Your task to perform on an android device: open the mobile data screen to see how much data has been used Image 0: 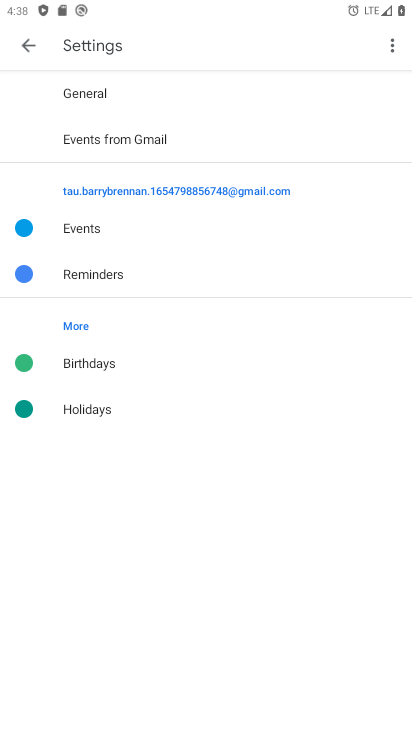
Step 0: press back button
Your task to perform on an android device: open the mobile data screen to see how much data has been used Image 1: 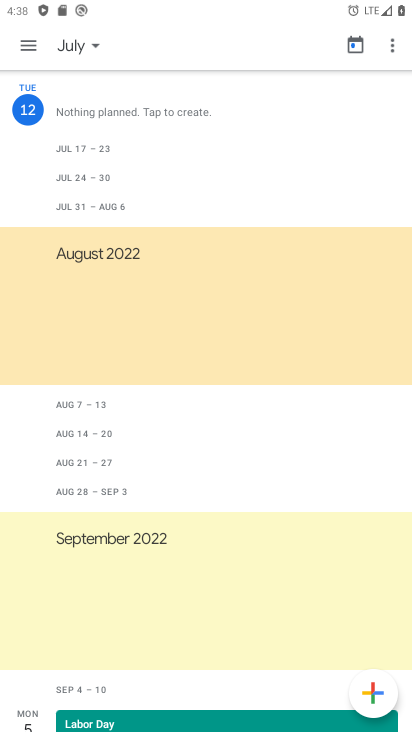
Step 1: click (77, 391)
Your task to perform on an android device: open the mobile data screen to see how much data has been used Image 2: 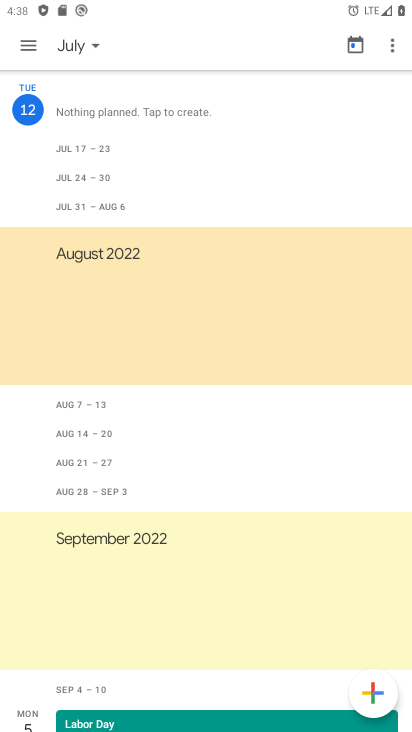
Step 2: click (74, 399)
Your task to perform on an android device: open the mobile data screen to see how much data has been used Image 3: 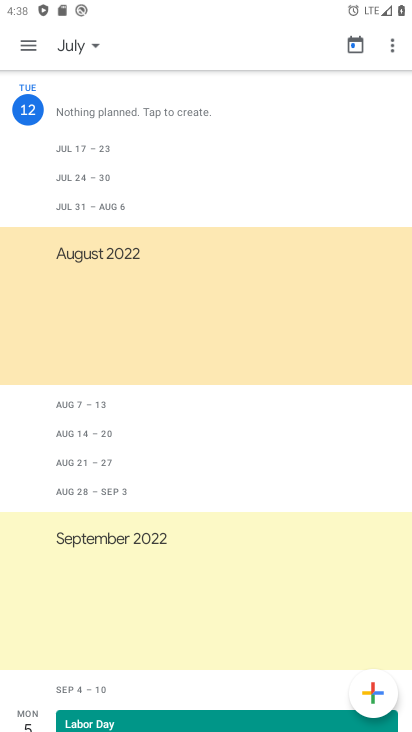
Step 3: click (77, 397)
Your task to perform on an android device: open the mobile data screen to see how much data has been used Image 4: 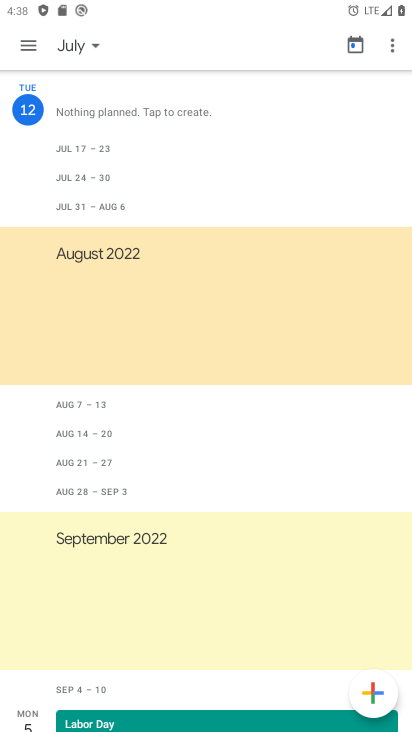
Step 4: click (78, 396)
Your task to perform on an android device: open the mobile data screen to see how much data has been used Image 5: 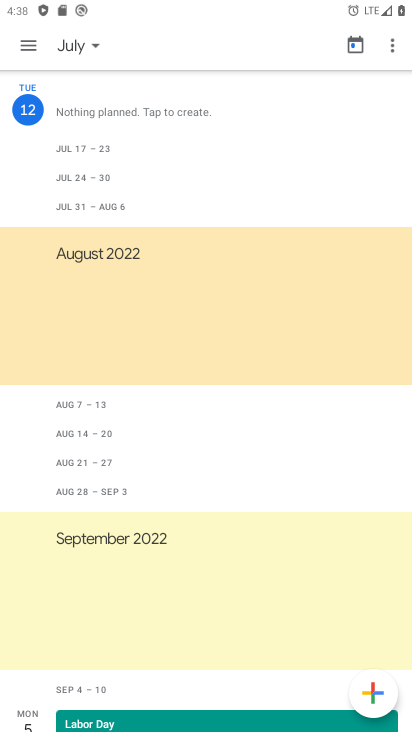
Step 5: click (81, 396)
Your task to perform on an android device: open the mobile data screen to see how much data has been used Image 6: 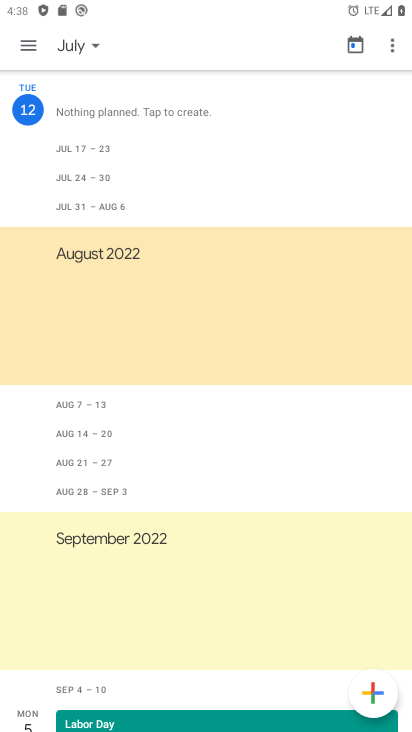
Step 6: click (81, 396)
Your task to perform on an android device: open the mobile data screen to see how much data has been used Image 7: 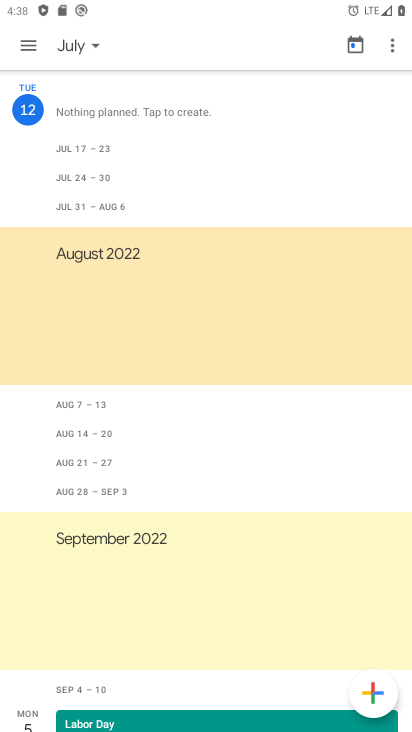
Step 7: click (81, 396)
Your task to perform on an android device: open the mobile data screen to see how much data has been used Image 8: 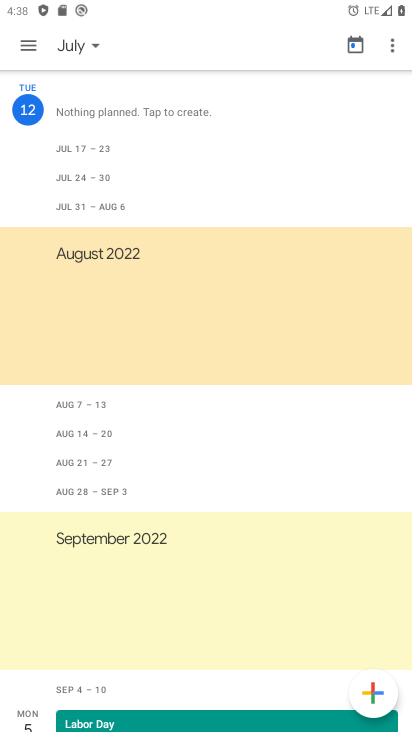
Step 8: click (84, 396)
Your task to perform on an android device: open the mobile data screen to see how much data has been used Image 9: 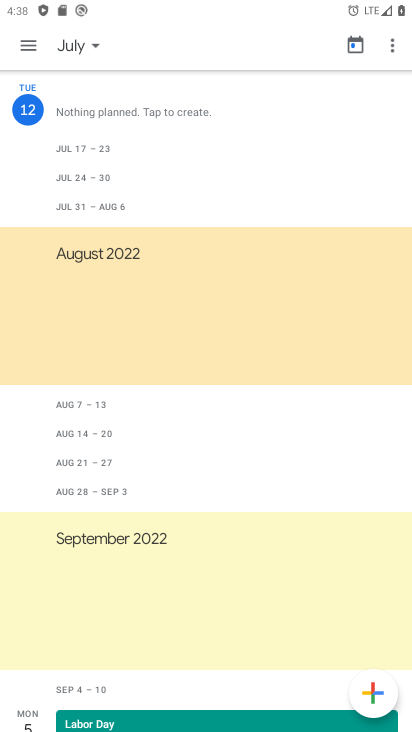
Step 9: click (84, 396)
Your task to perform on an android device: open the mobile data screen to see how much data has been used Image 10: 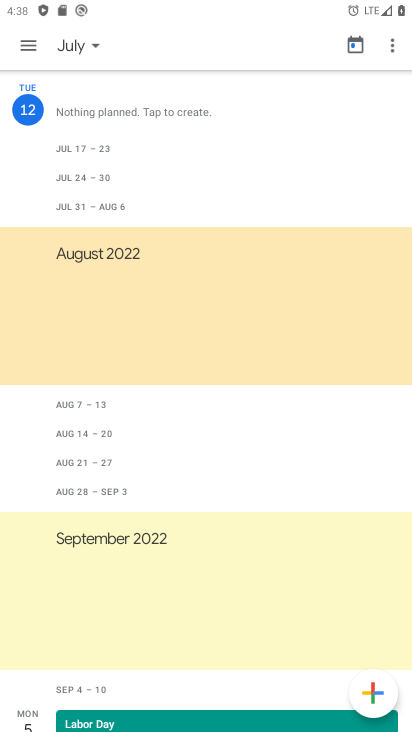
Step 10: click (85, 396)
Your task to perform on an android device: open the mobile data screen to see how much data has been used Image 11: 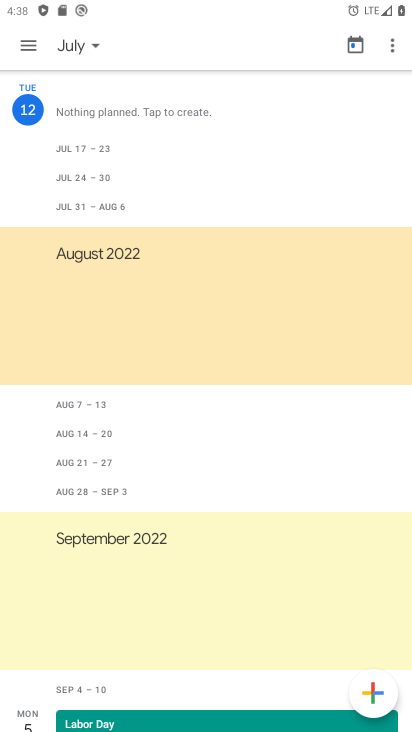
Step 11: click (86, 397)
Your task to perform on an android device: open the mobile data screen to see how much data has been used Image 12: 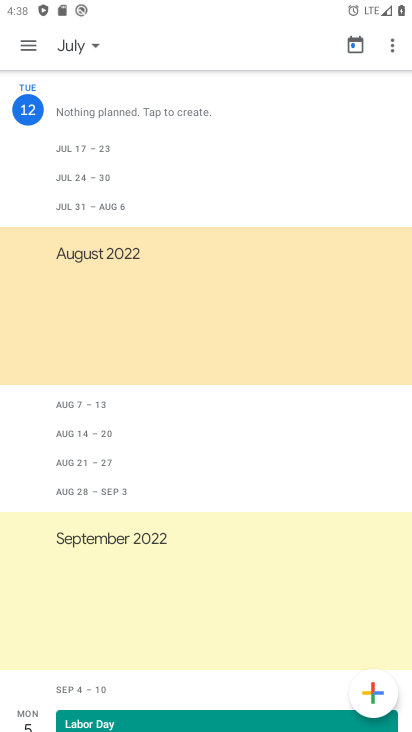
Step 12: click (83, 400)
Your task to perform on an android device: open the mobile data screen to see how much data has been used Image 13: 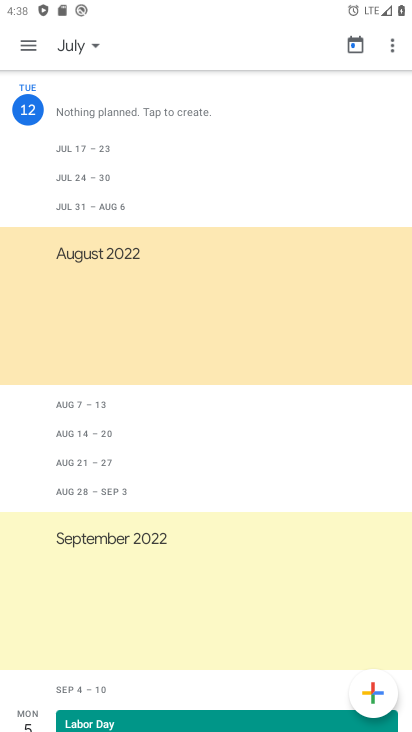
Step 13: click (84, 401)
Your task to perform on an android device: open the mobile data screen to see how much data has been used Image 14: 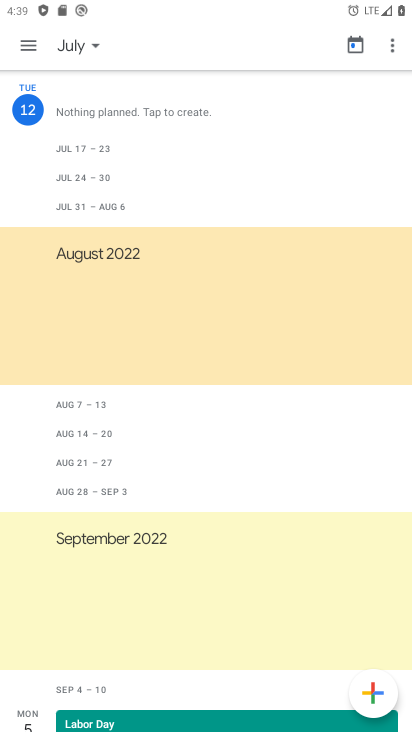
Step 14: press back button
Your task to perform on an android device: open the mobile data screen to see how much data has been used Image 15: 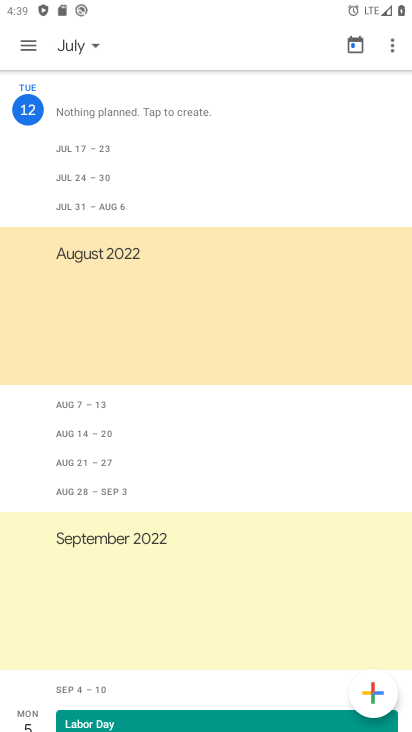
Step 15: press back button
Your task to perform on an android device: open the mobile data screen to see how much data has been used Image 16: 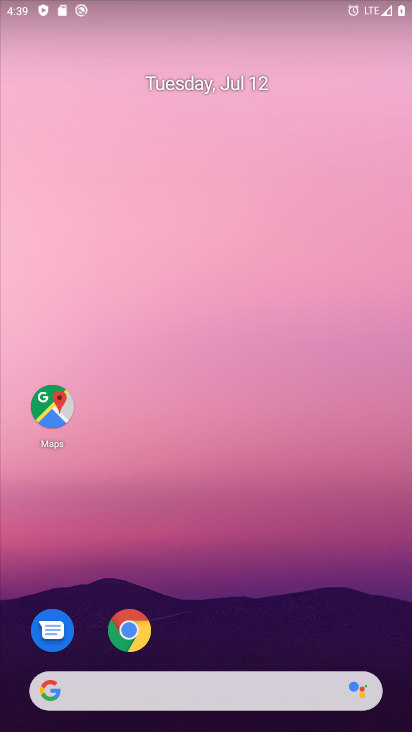
Step 16: click (152, 74)
Your task to perform on an android device: open the mobile data screen to see how much data has been used Image 17: 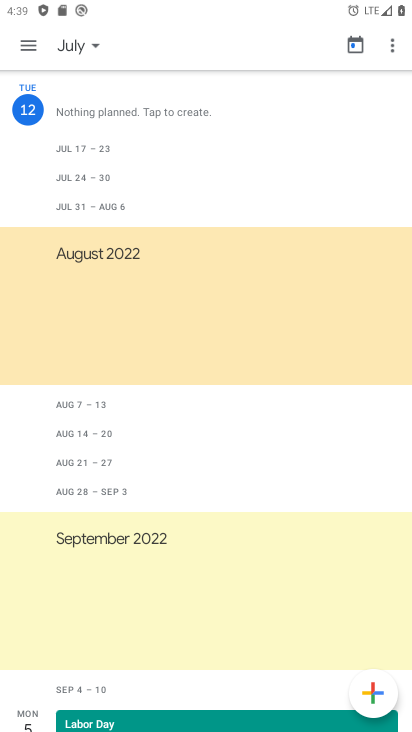
Step 17: press home button
Your task to perform on an android device: open the mobile data screen to see how much data has been used Image 18: 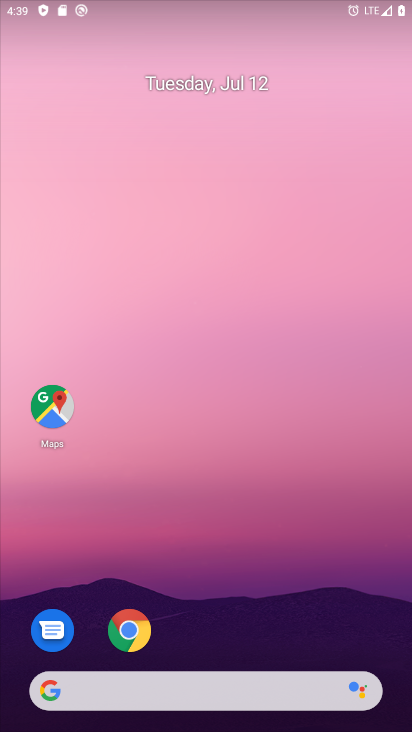
Step 18: drag from (199, 717) to (67, 108)
Your task to perform on an android device: open the mobile data screen to see how much data has been used Image 19: 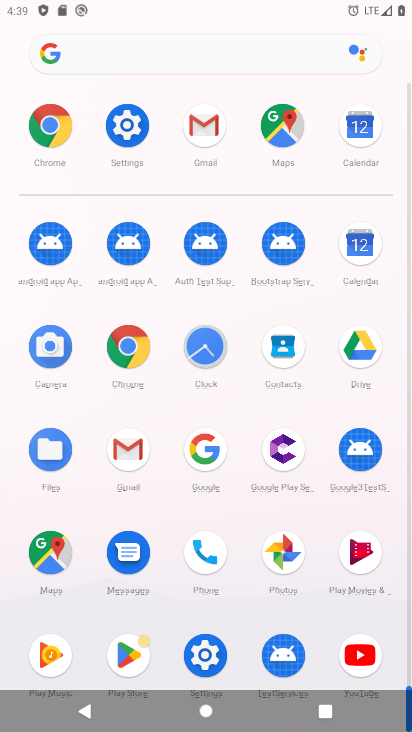
Step 19: click (136, 145)
Your task to perform on an android device: open the mobile data screen to see how much data has been used Image 20: 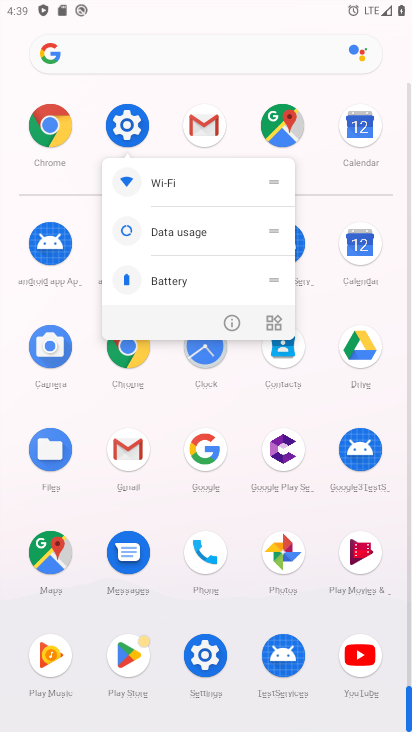
Step 20: click (128, 145)
Your task to perform on an android device: open the mobile data screen to see how much data has been used Image 21: 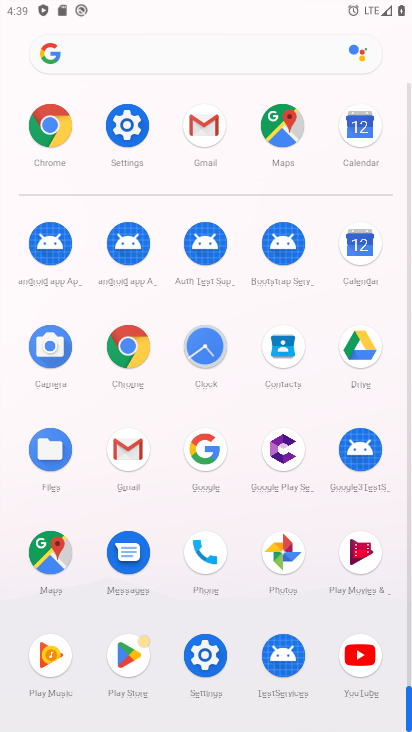
Step 21: click (130, 116)
Your task to perform on an android device: open the mobile data screen to see how much data has been used Image 22: 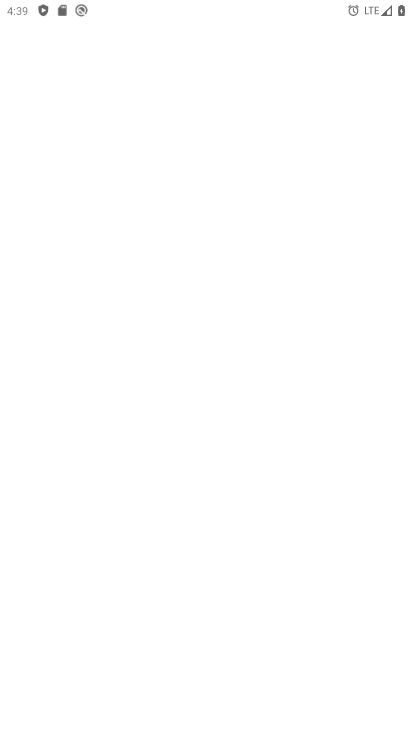
Step 22: click (130, 116)
Your task to perform on an android device: open the mobile data screen to see how much data has been used Image 23: 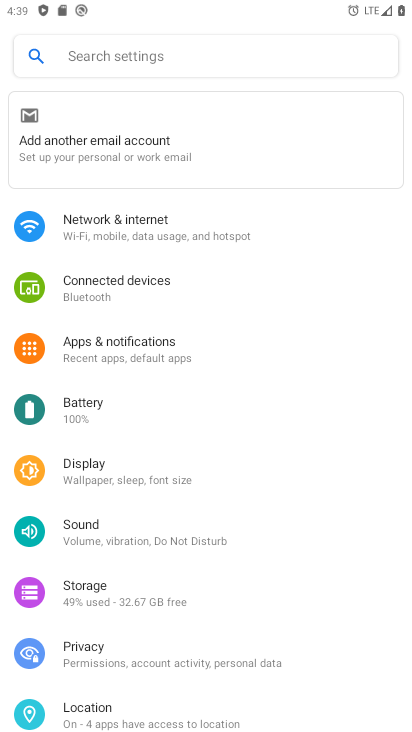
Step 23: click (84, 592)
Your task to perform on an android device: open the mobile data screen to see how much data has been used Image 24: 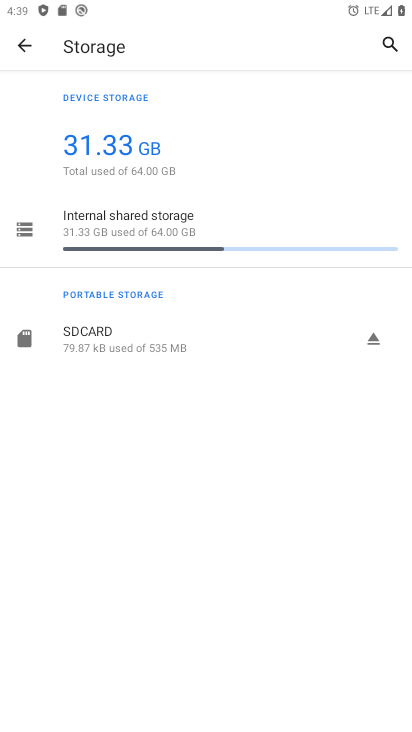
Step 24: click (84, 592)
Your task to perform on an android device: open the mobile data screen to see how much data has been used Image 25: 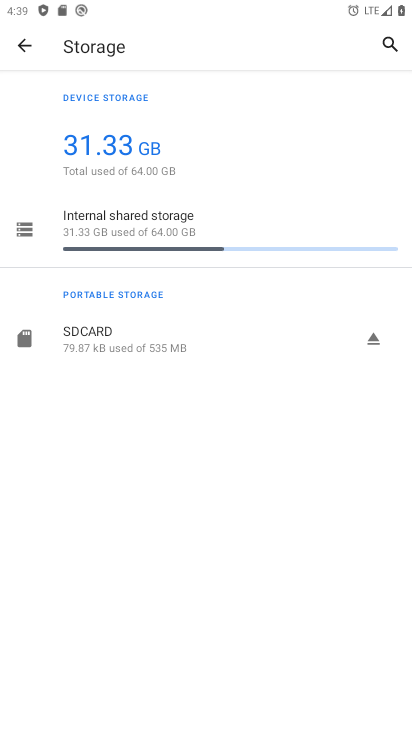
Step 25: click (19, 47)
Your task to perform on an android device: open the mobile data screen to see how much data has been used Image 26: 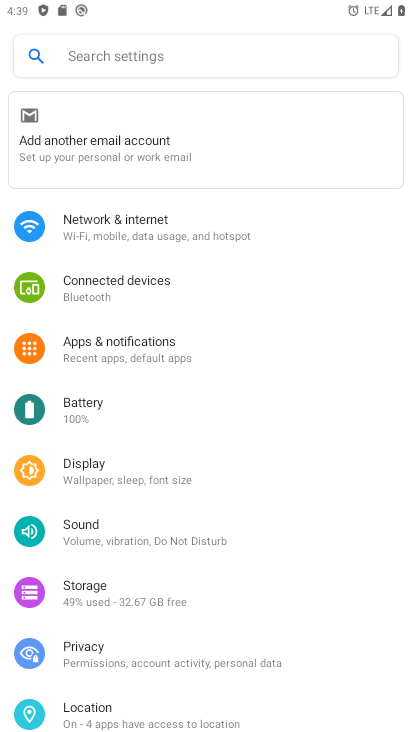
Step 26: click (96, 224)
Your task to perform on an android device: open the mobile data screen to see how much data has been used Image 27: 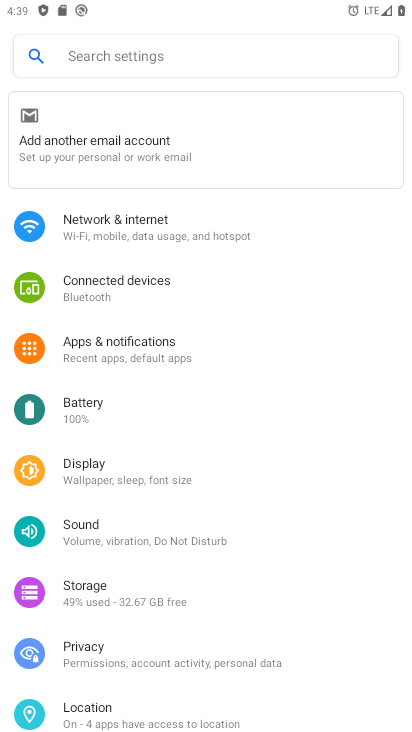
Step 27: click (100, 223)
Your task to perform on an android device: open the mobile data screen to see how much data has been used Image 28: 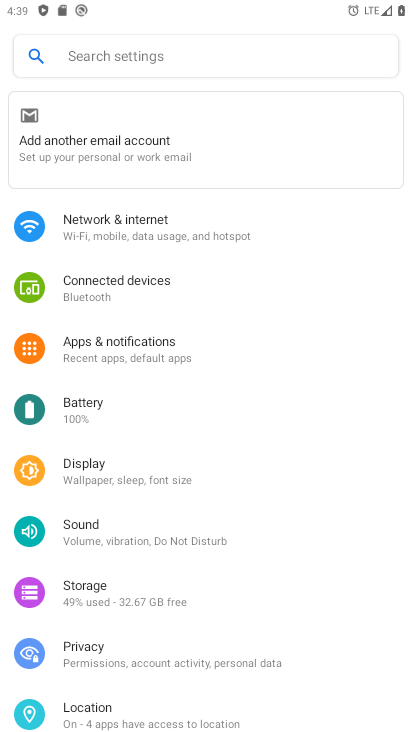
Step 28: click (107, 224)
Your task to perform on an android device: open the mobile data screen to see how much data has been used Image 29: 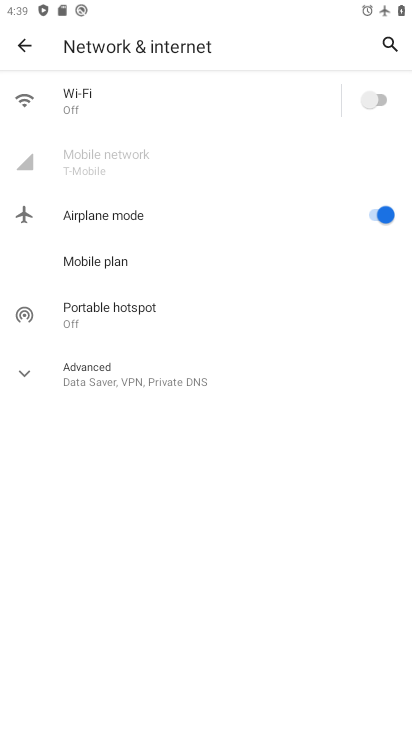
Step 29: click (365, 86)
Your task to perform on an android device: open the mobile data screen to see how much data has been used Image 30: 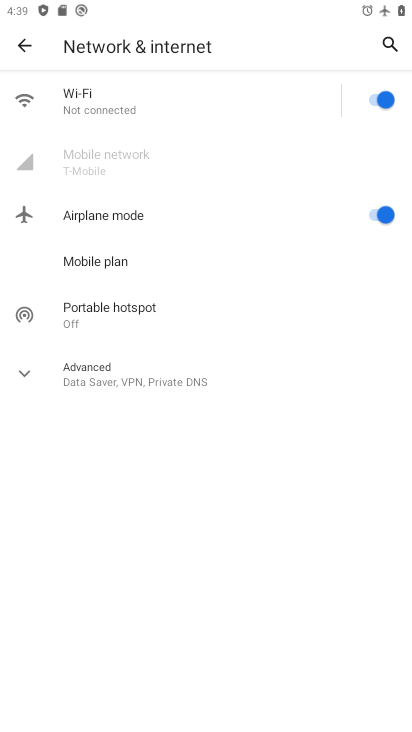
Step 30: click (384, 208)
Your task to perform on an android device: open the mobile data screen to see how much data has been used Image 31: 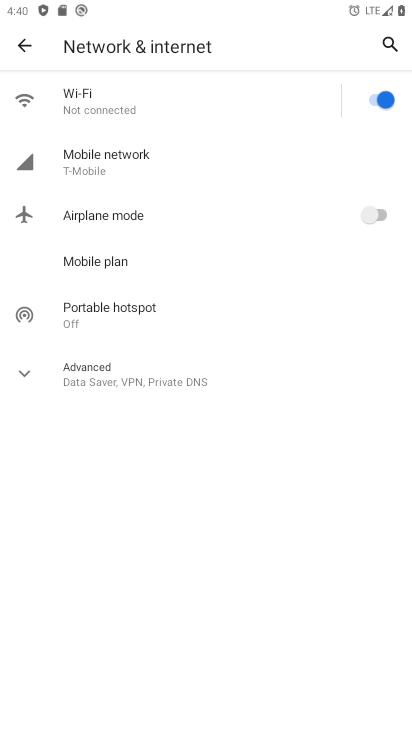
Step 31: click (77, 156)
Your task to perform on an android device: open the mobile data screen to see how much data has been used Image 32: 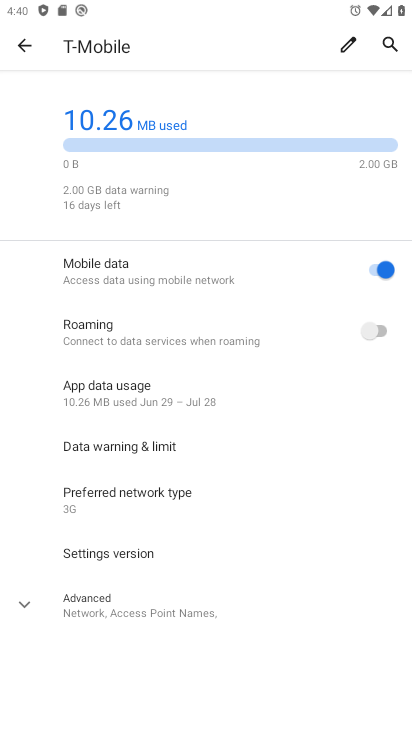
Step 32: task complete